Your task to perform on an android device: change the clock display to analog Image 0: 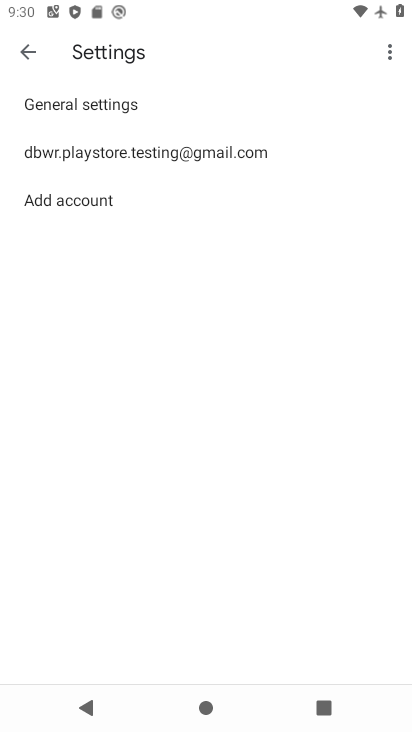
Step 0: press home button
Your task to perform on an android device: change the clock display to analog Image 1: 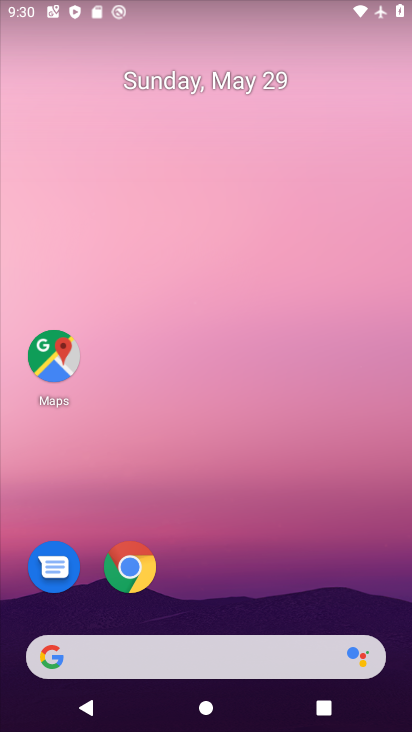
Step 1: drag from (379, 607) to (318, 78)
Your task to perform on an android device: change the clock display to analog Image 2: 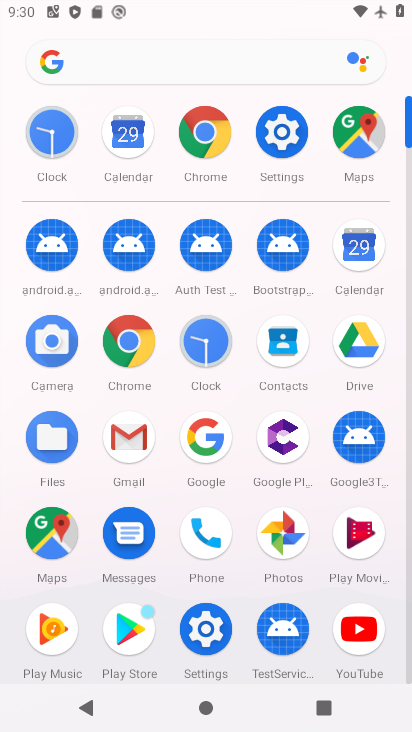
Step 2: click (205, 341)
Your task to perform on an android device: change the clock display to analog Image 3: 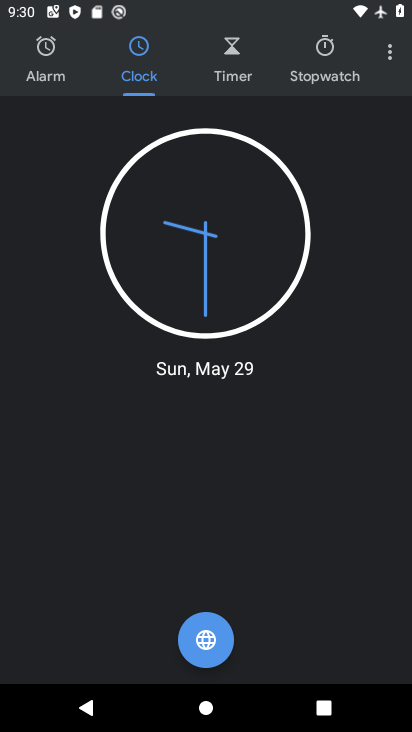
Step 3: click (388, 59)
Your task to perform on an android device: change the clock display to analog Image 4: 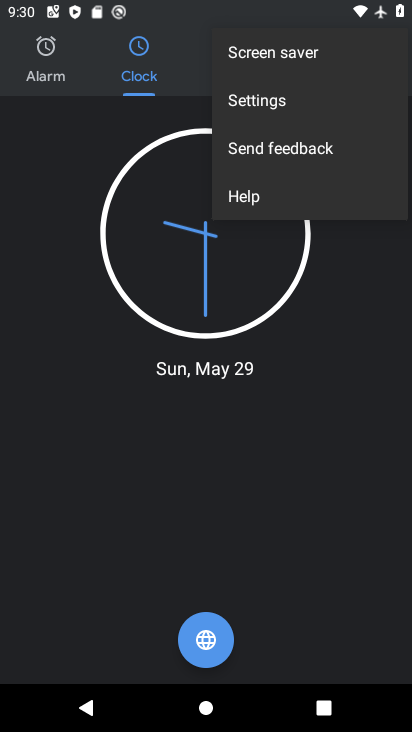
Step 4: click (249, 100)
Your task to perform on an android device: change the clock display to analog Image 5: 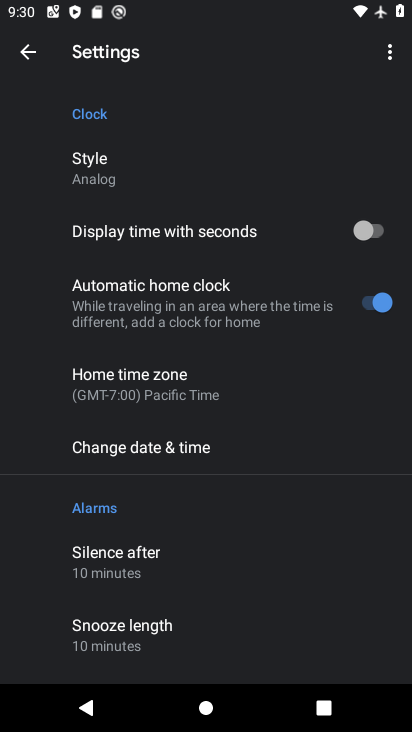
Step 5: task complete